Your task to perform on an android device: What's the weather going to be this weekend? Image 0: 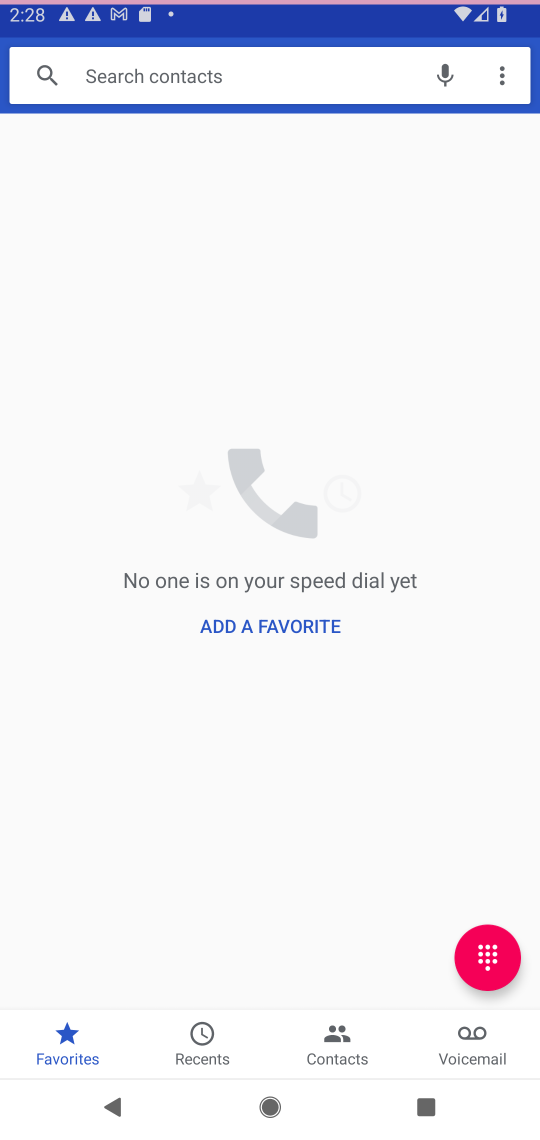
Step 0: press home button
Your task to perform on an android device: What's the weather going to be this weekend? Image 1: 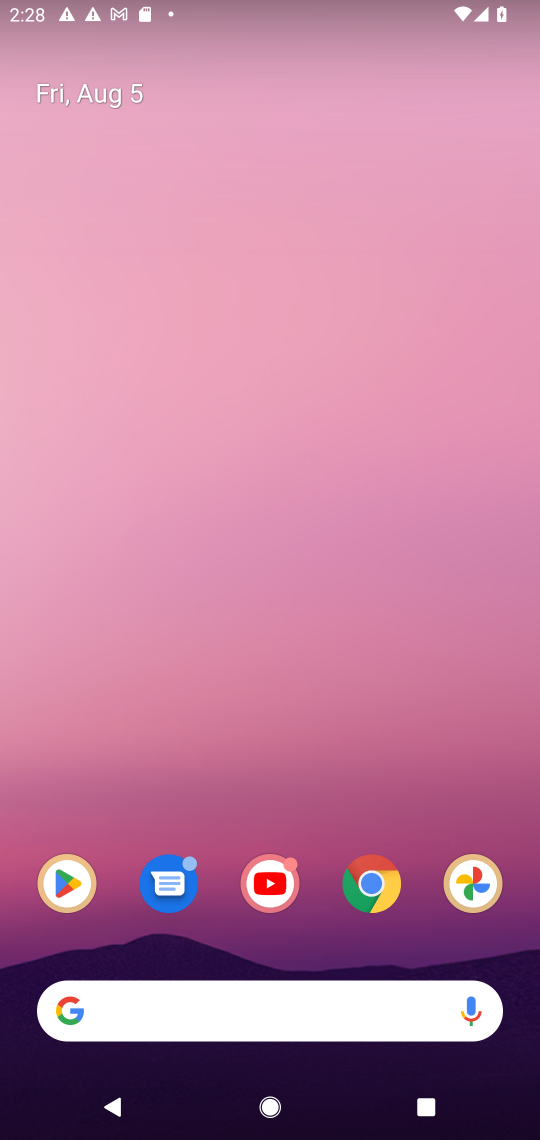
Step 1: click (235, 1003)
Your task to perform on an android device: What's the weather going to be this weekend? Image 2: 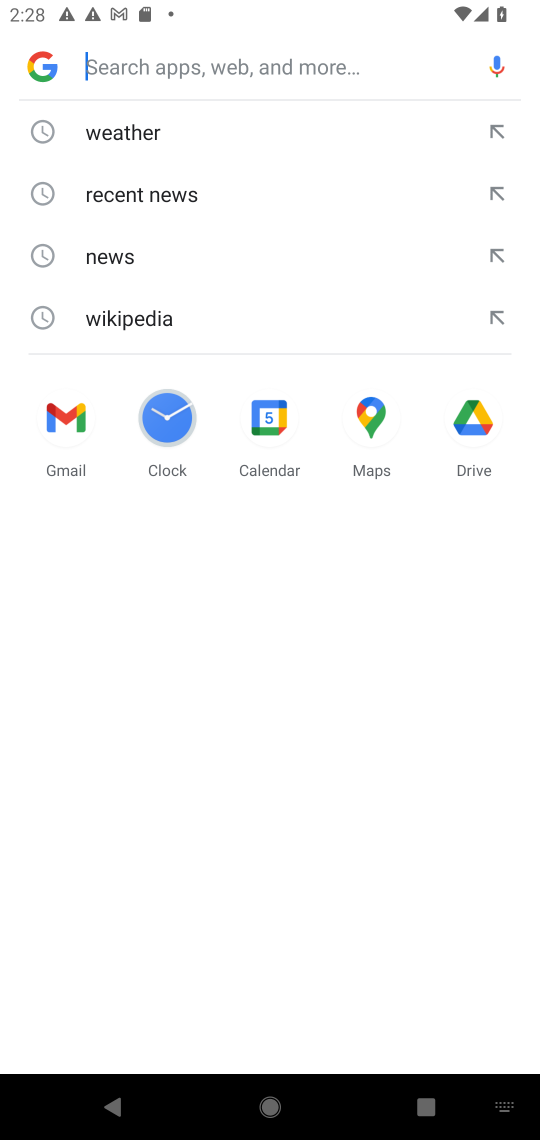
Step 2: click (180, 127)
Your task to perform on an android device: What's the weather going to be this weekend? Image 3: 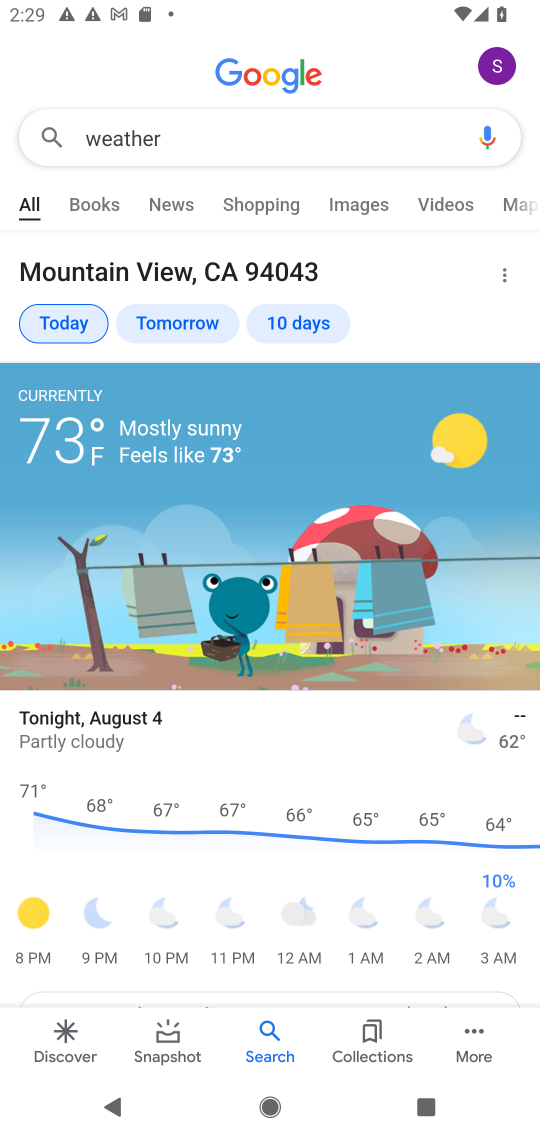
Step 3: click (296, 323)
Your task to perform on an android device: What's the weather going to be this weekend? Image 4: 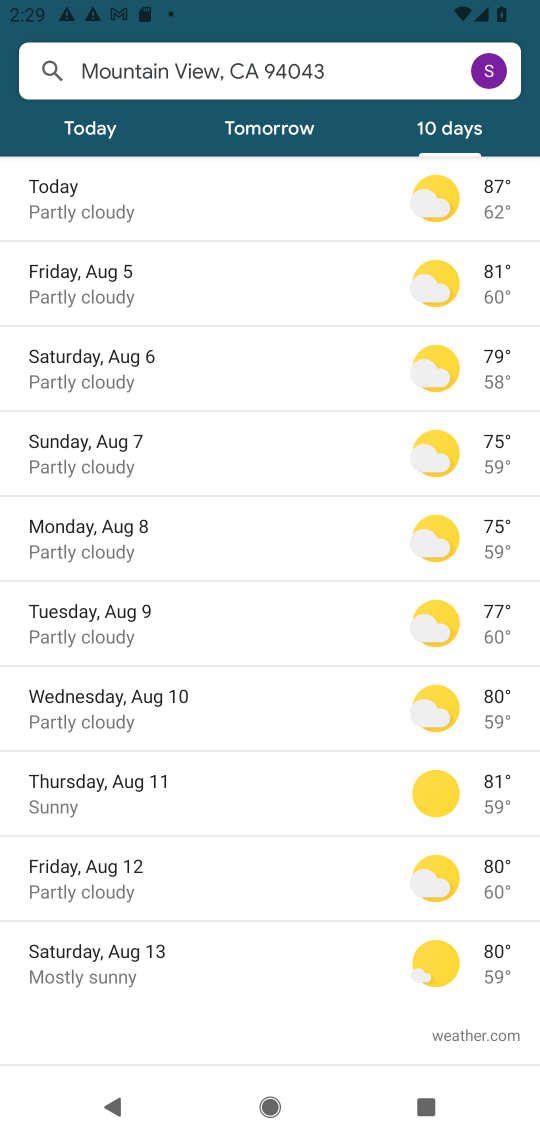
Step 4: click (116, 370)
Your task to perform on an android device: What's the weather going to be this weekend? Image 5: 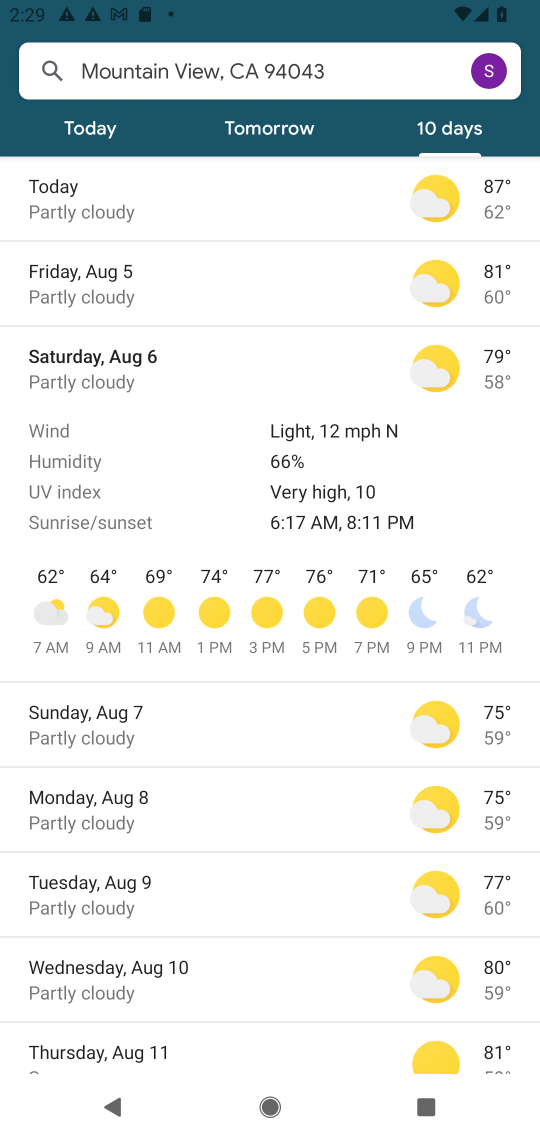
Step 5: click (148, 719)
Your task to perform on an android device: What's the weather going to be this weekend? Image 6: 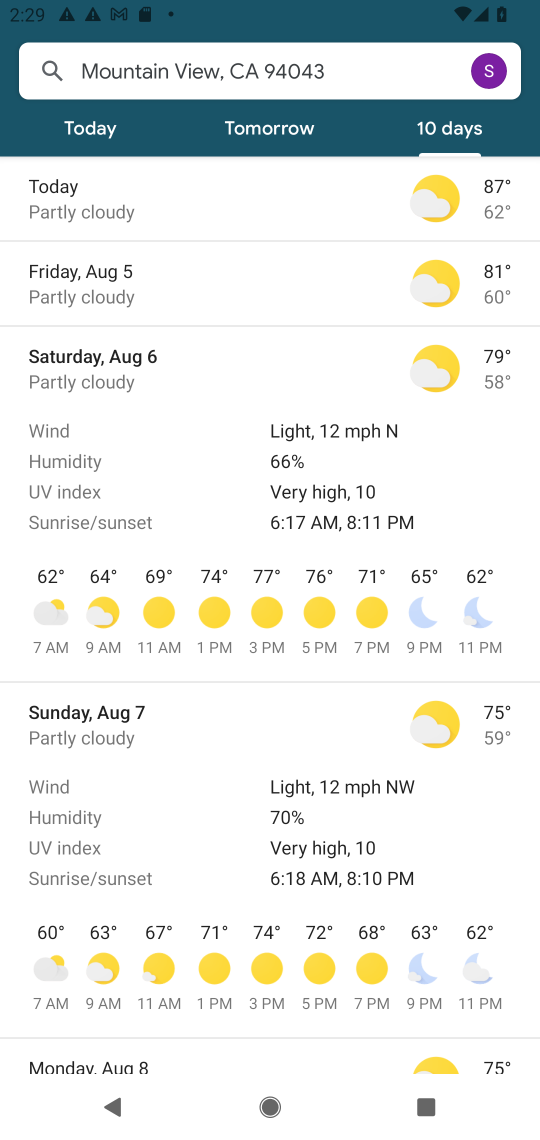
Step 6: task complete